Your task to perform on an android device: manage bookmarks in the chrome app Image 0: 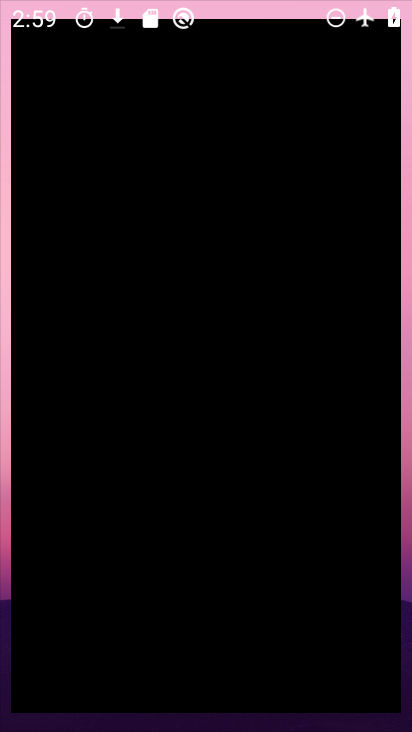
Step 0: drag from (193, 614) to (370, 11)
Your task to perform on an android device: manage bookmarks in the chrome app Image 1: 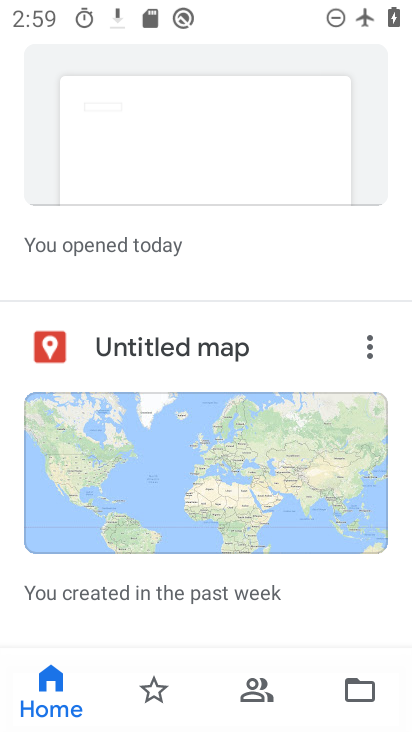
Step 1: drag from (183, 589) to (323, 92)
Your task to perform on an android device: manage bookmarks in the chrome app Image 2: 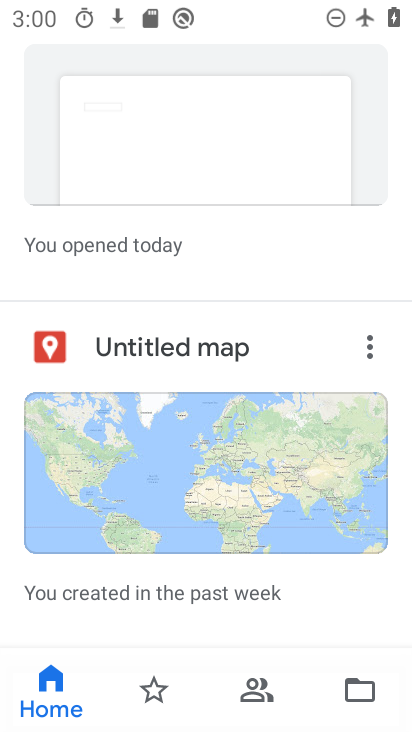
Step 2: drag from (258, 275) to (265, 713)
Your task to perform on an android device: manage bookmarks in the chrome app Image 3: 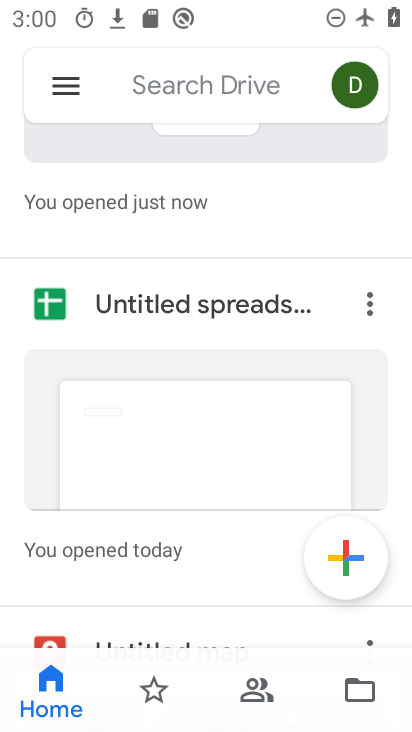
Step 3: press home button
Your task to perform on an android device: manage bookmarks in the chrome app Image 4: 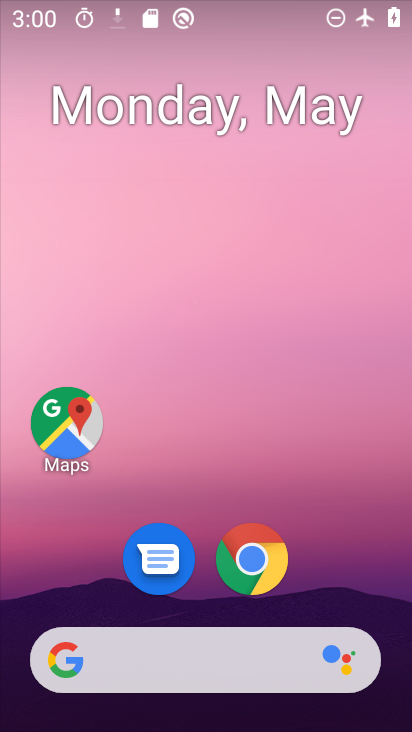
Step 4: click (243, 561)
Your task to perform on an android device: manage bookmarks in the chrome app Image 5: 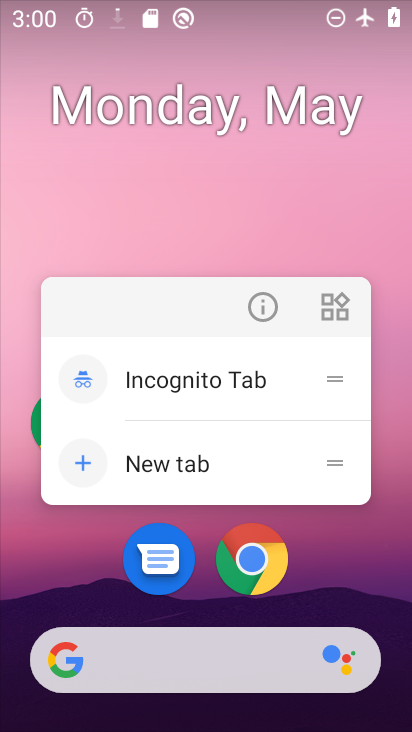
Step 5: click (276, 308)
Your task to perform on an android device: manage bookmarks in the chrome app Image 6: 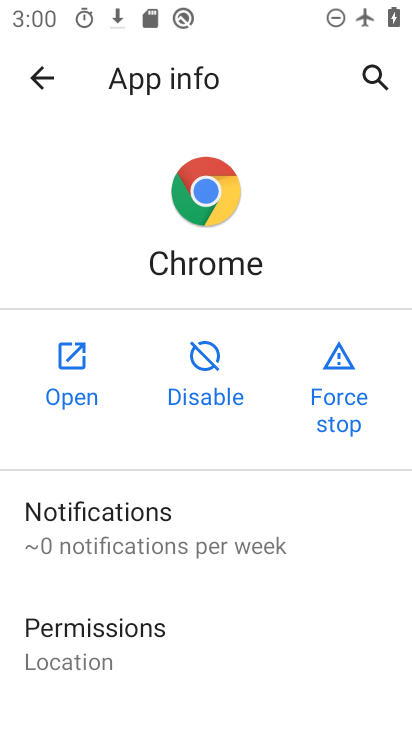
Step 6: click (66, 395)
Your task to perform on an android device: manage bookmarks in the chrome app Image 7: 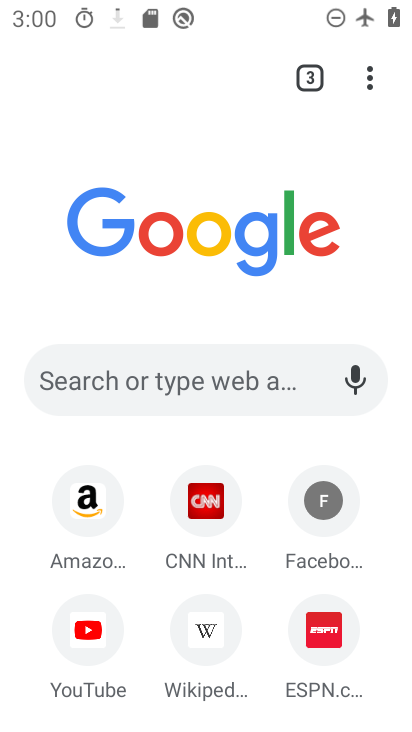
Step 7: drag from (374, 89) to (143, 311)
Your task to perform on an android device: manage bookmarks in the chrome app Image 8: 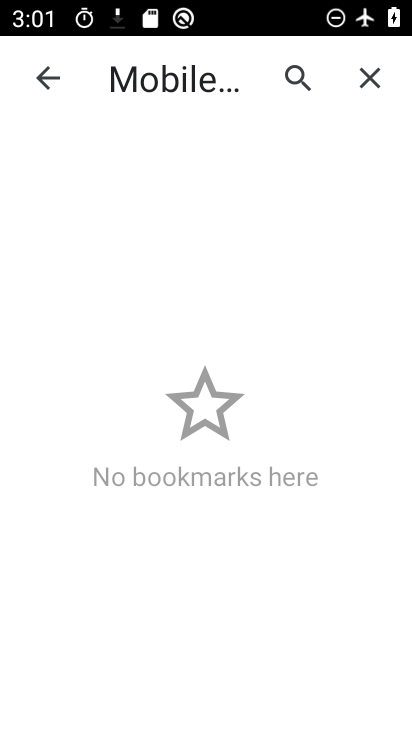
Step 8: drag from (215, 549) to (299, 219)
Your task to perform on an android device: manage bookmarks in the chrome app Image 9: 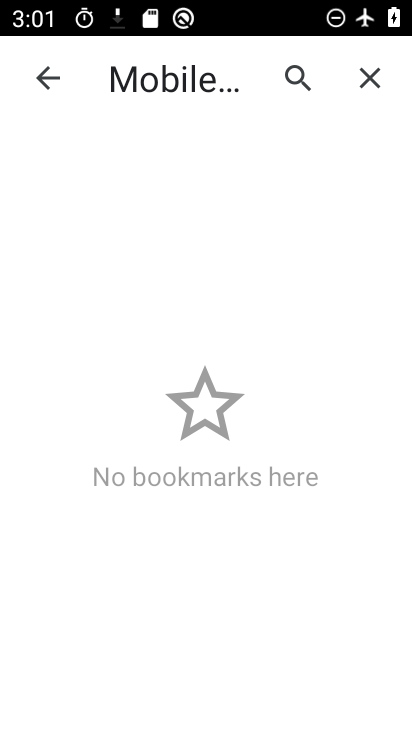
Step 9: click (208, 538)
Your task to perform on an android device: manage bookmarks in the chrome app Image 10: 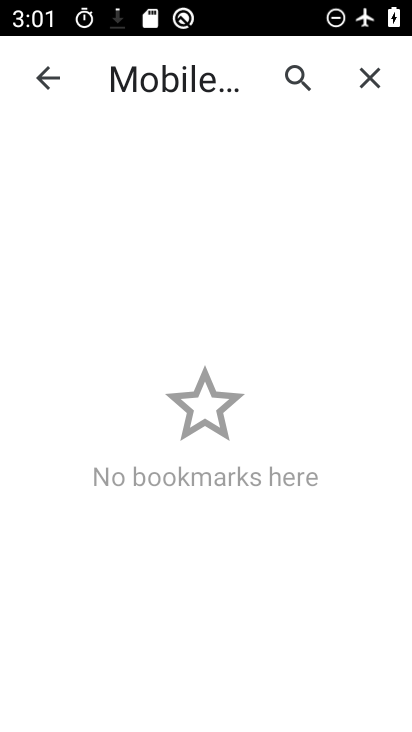
Step 10: task complete